Your task to perform on an android device: Show me popular videos on Youtube Image 0: 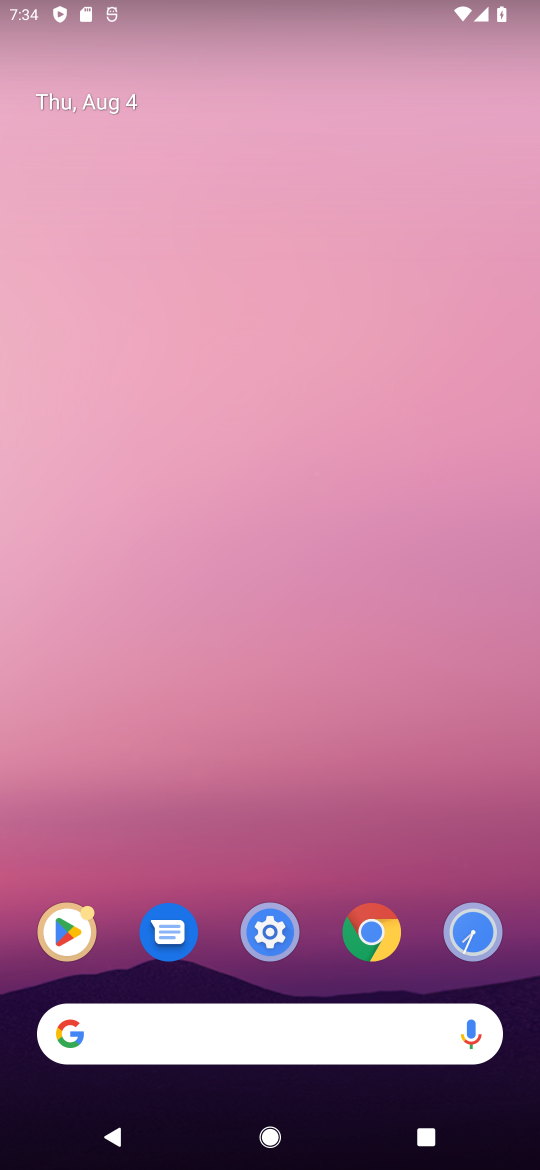
Step 0: drag from (274, 829) to (230, 182)
Your task to perform on an android device: Show me popular videos on Youtube Image 1: 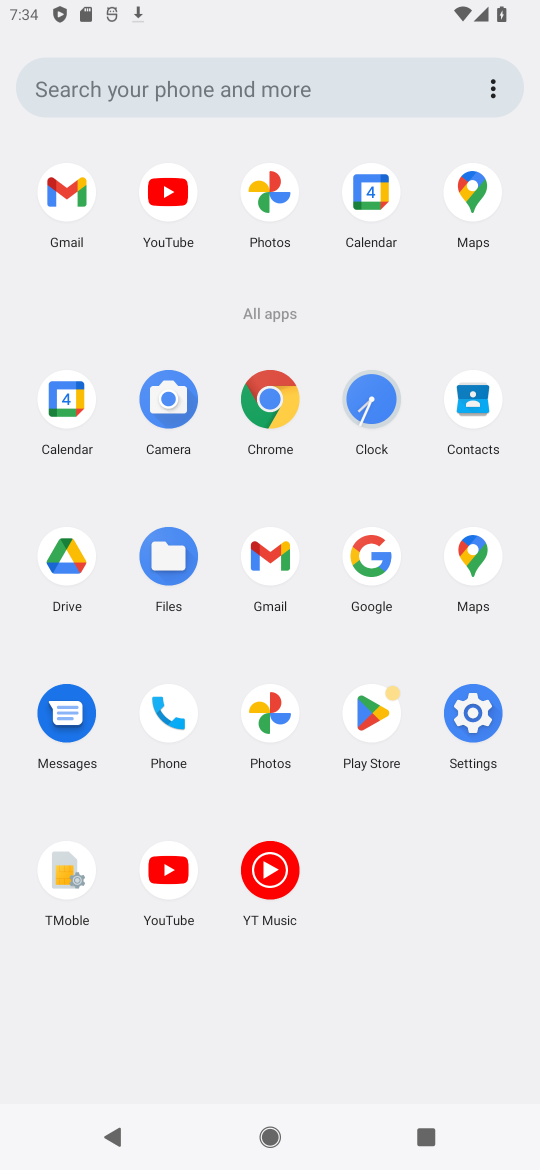
Step 1: click (177, 863)
Your task to perform on an android device: Show me popular videos on Youtube Image 2: 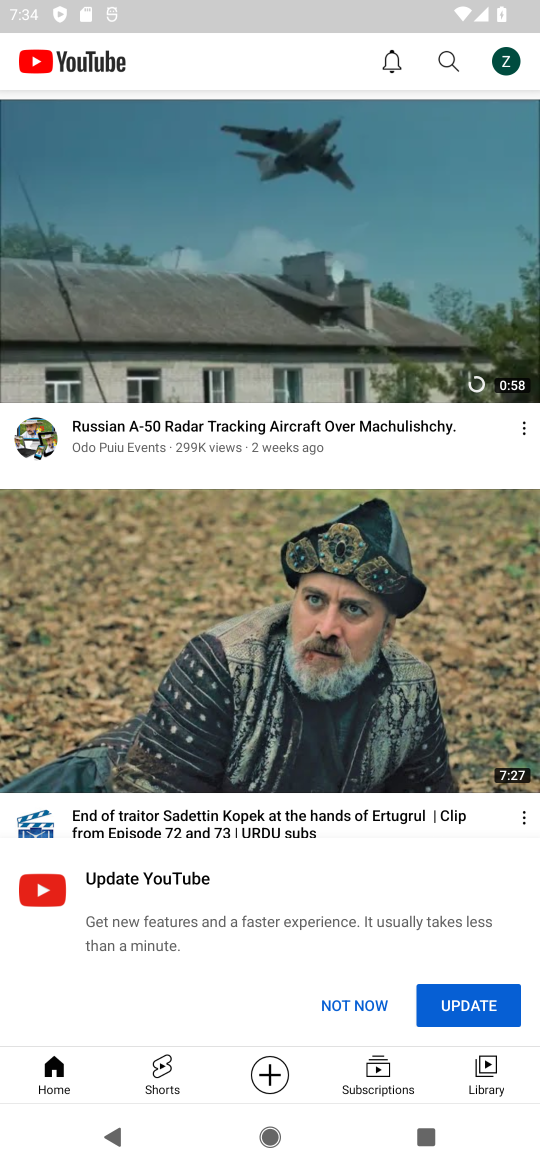
Step 2: drag from (54, 144) to (140, 612)
Your task to perform on an android device: Show me popular videos on Youtube Image 3: 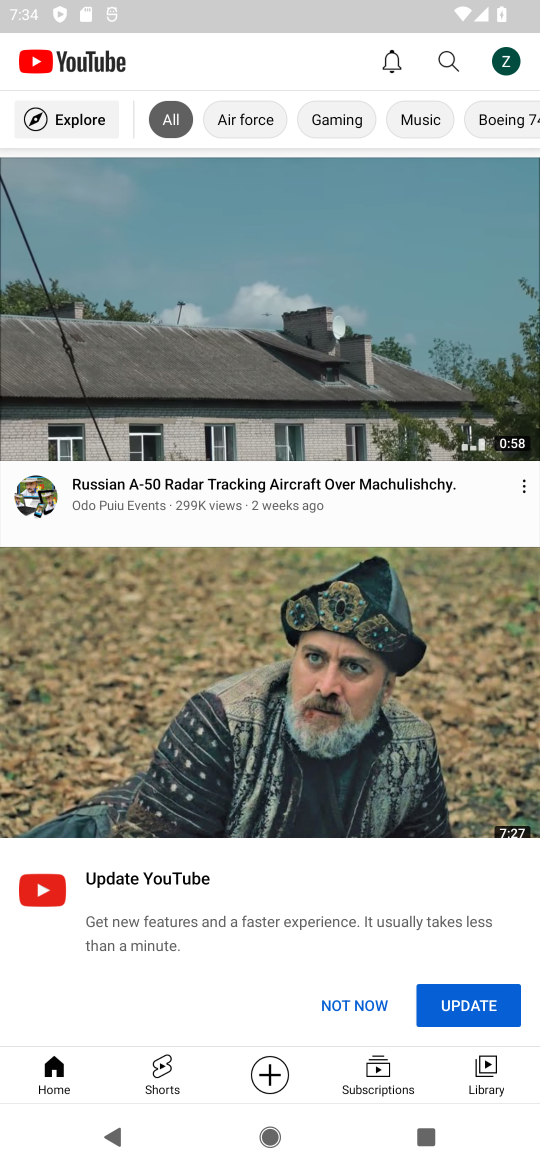
Step 3: click (78, 110)
Your task to perform on an android device: Show me popular videos on Youtube Image 4: 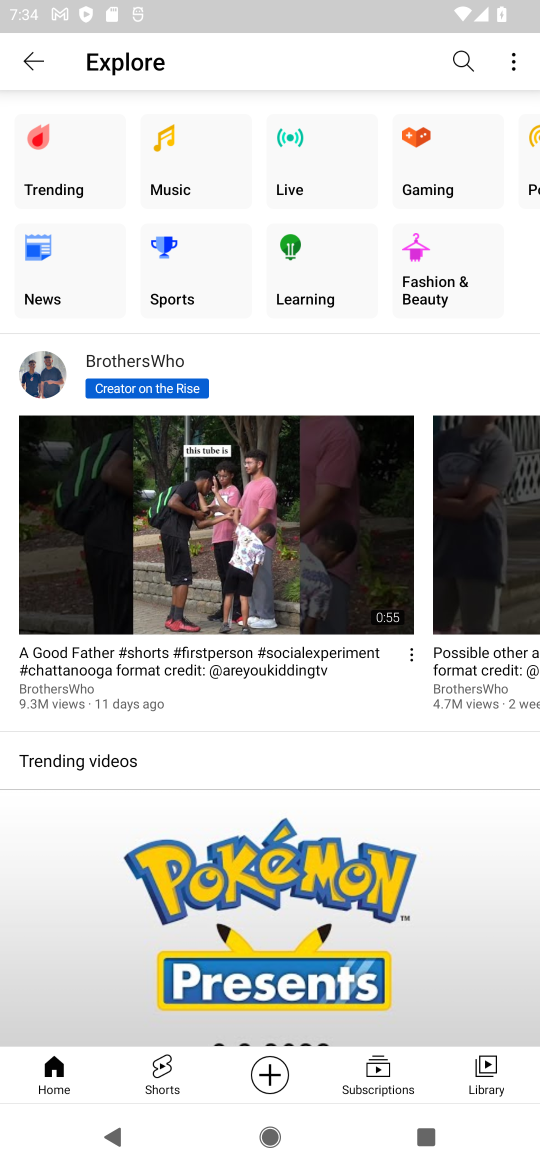
Step 4: click (55, 166)
Your task to perform on an android device: Show me popular videos on Youtube Image 5: 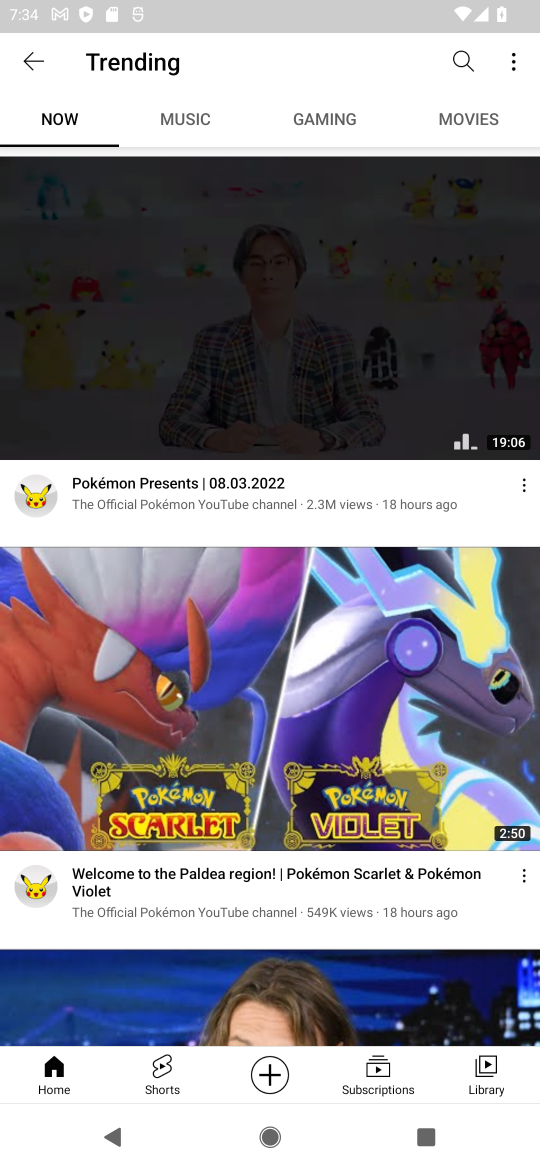
Step 5: task complete